Your task to perform on an android device: read, delete, or share a saved page in the chrome app Image 0: 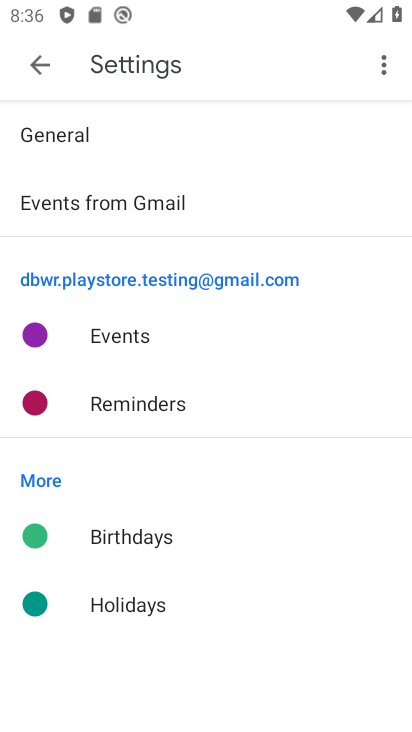
Step 0: press back button
Your task to perform on an android device: read, delete, or share a saved page in the chrome app Image 1: 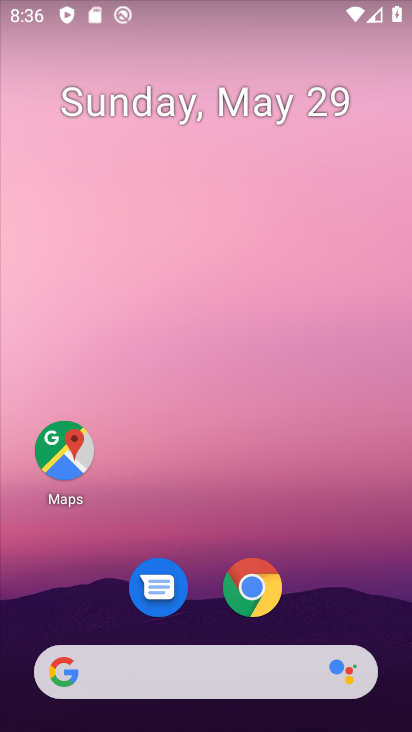
Step 1: click (260, 569)
Your task to perform on an android device: read, delete, or share a saved page in the chrome app Image 2: 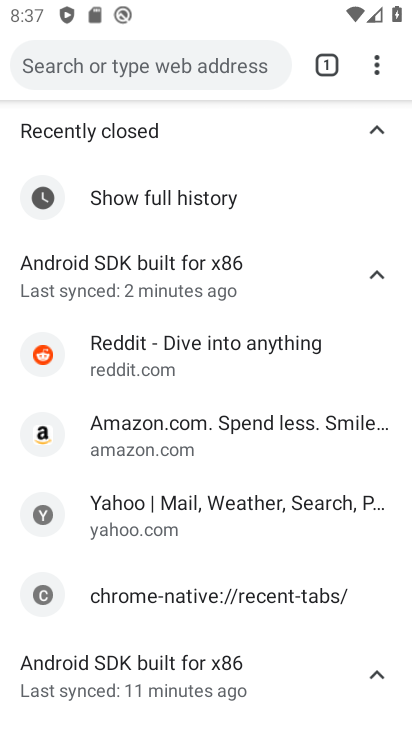
Step 2: drag from (380, 64) to (147, 424)
Your task to perform on an android device: read, delete, or share a saved page in the chrome app Image 3: 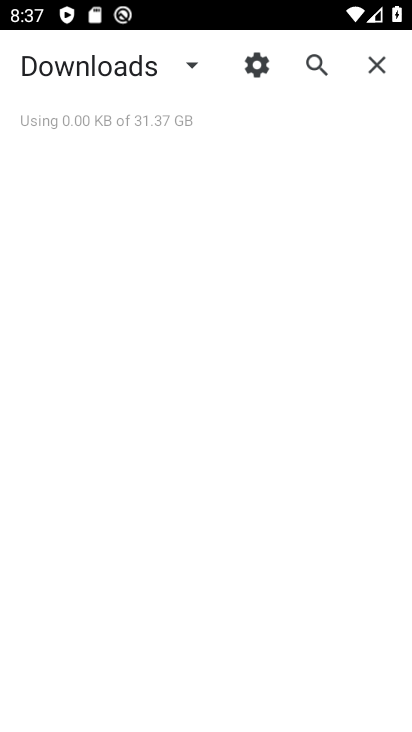
Step 3: click (184, 57)
Your task to perform on an android device: read, delete, or share a saved page in the chrome app Image 4: 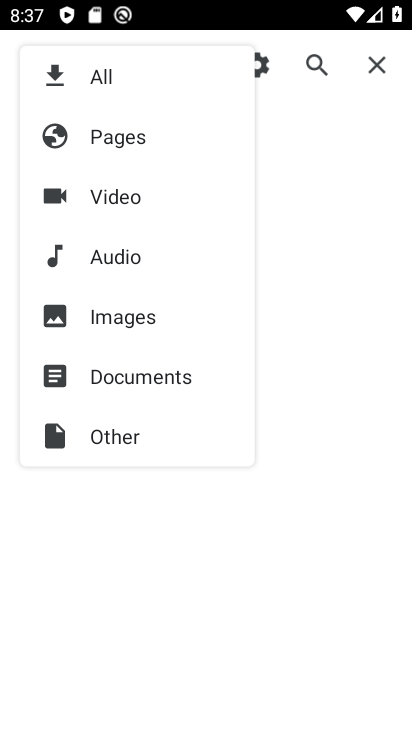
Step 4: click (132, 140)
Your task to perform on an android device: read, delete, or share a saved page in the chrome app Image 5: 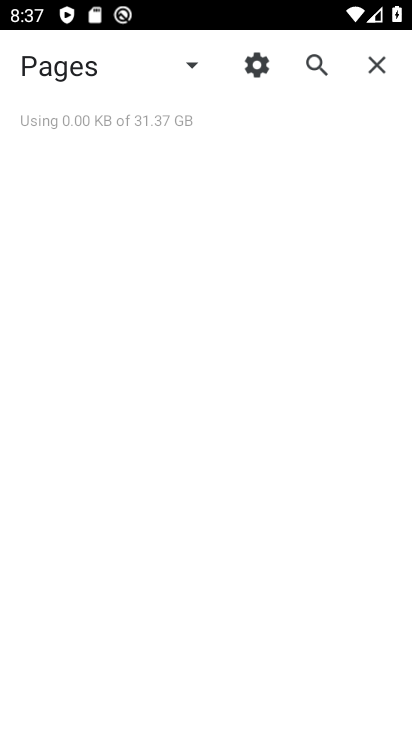
Step 5: task complete